Your task to perform on an android device: open wifi settings Image 0: 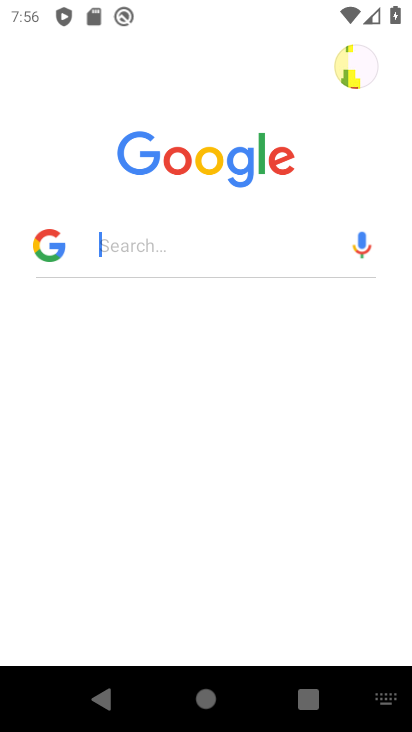
Step 0: press back button
Your task to perform on an android device: open wifi settings Image 1: 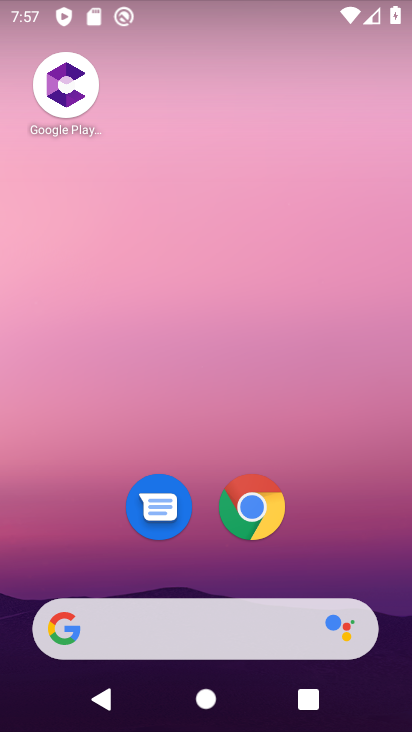
Step 1: drag from (218, 585) to (158, 87)
Your task to perform on an android device: open wifi settings Image 2: 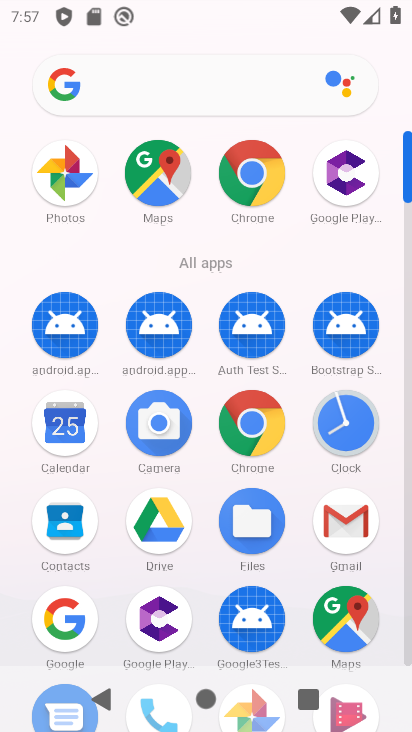
Step 2: drag from (207, 469) to (184, 4)
Your task to perform on an android device: open wifi settings Image 3: 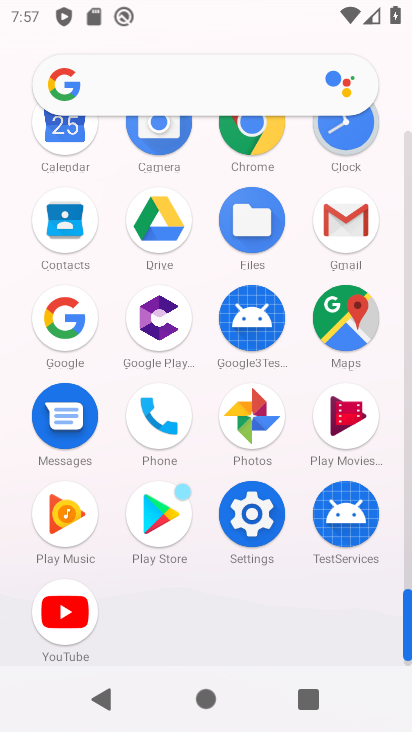
Step 3: click (240, 508)
Your task to perform on an android device: open wifi settings Image 4: 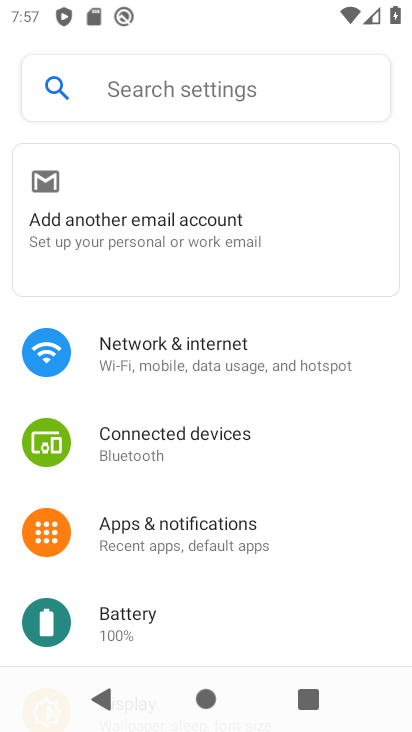
Step 4: click (124, 332)
Your task to perform on an android device: open wifi settings Image 5: 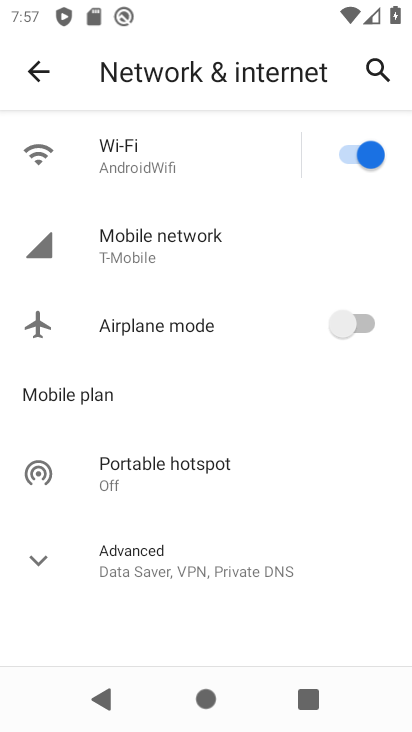
Step 5: click (133, 174)
Your task to perform on an android device: open wifi settings Image 6: 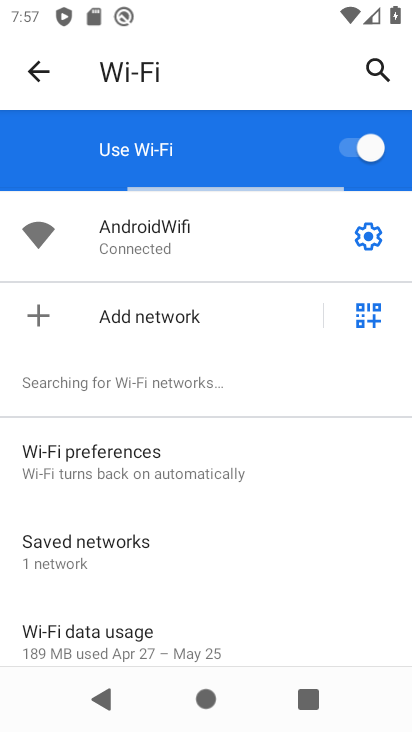
Step 6: task complete